Your task to perform on an android device: allow notifications from all sites in the chrome app Image 0: 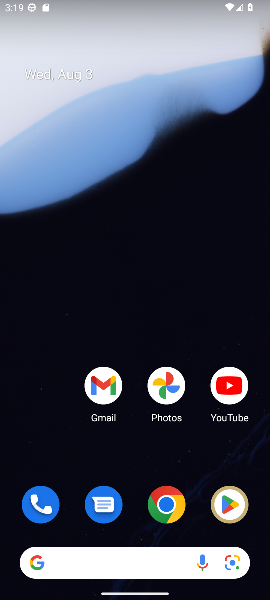
Step 0: click (165, 507)
Your task to perform on an android device: allow notifications from all sites in the chrome app Image 1: 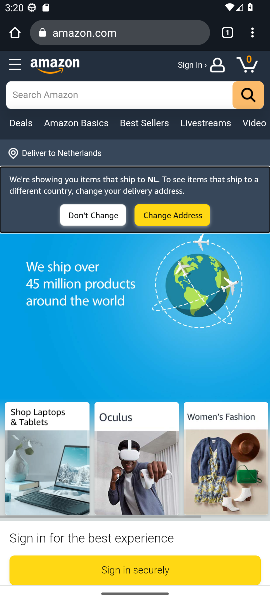
Step 1: click (254, 37)
Your task to perform on an android device: allow notifications from all sites in the chrome app Image 2: 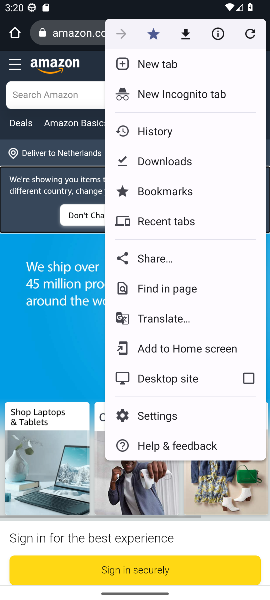
Step 2: click (154, 416)
Your task to perform on an android device: allow notifications from all sites in the chrome app Image 3: 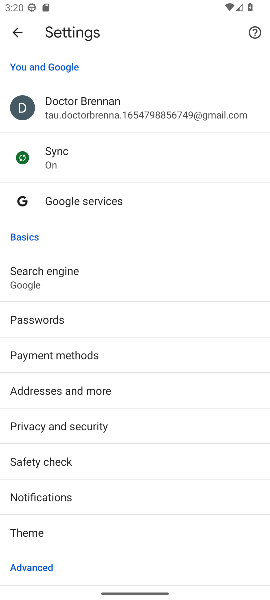
Step 3: drag from (82, 432) to (88, 385)
Your task to perform on an android device: allow notifications from all sites in the chrome app Image 4: 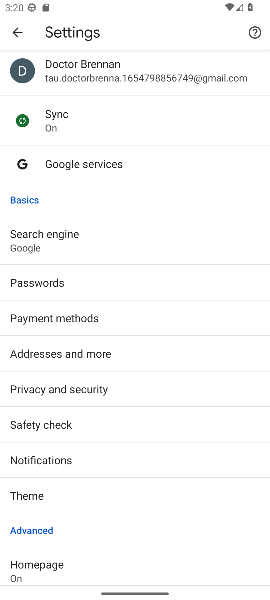
Step 4: click (62, 460)
Your task to perform on an android device: allow notifications from all sites in the chrome app Image 5: 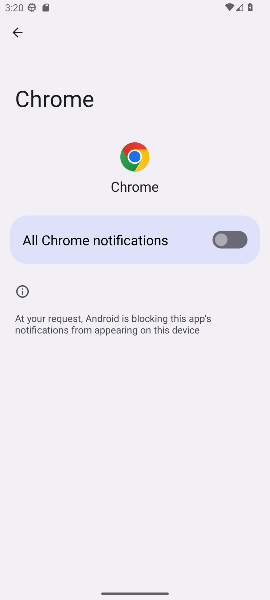
Step 5: click (200, 231)
Your task to perform on an android device: allow notifications from all sites in the chrome app Image 6: 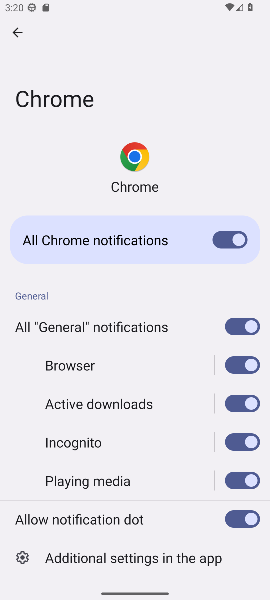
Step 6: task complete